Your task to perform on an android device: turn off data saver in the chrome app Image 0: 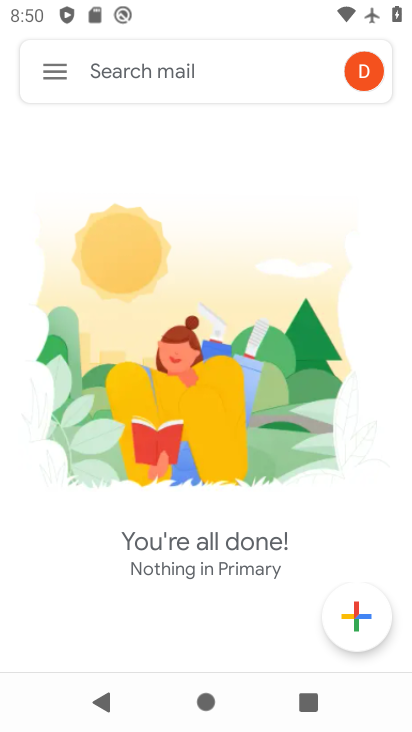
Step 0: press home button
Your task to perform on an android device: turn off data saver in the chrome app Image 1: 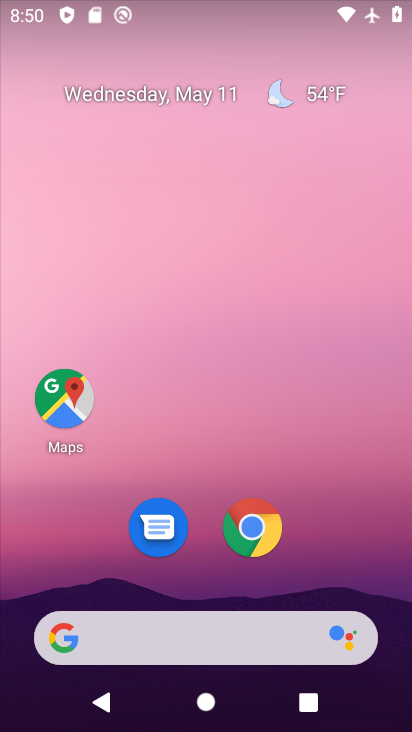
Step 1: click (270, 536)
Your task to perform on an android device: turn off data saver in the chrome app Image 2: 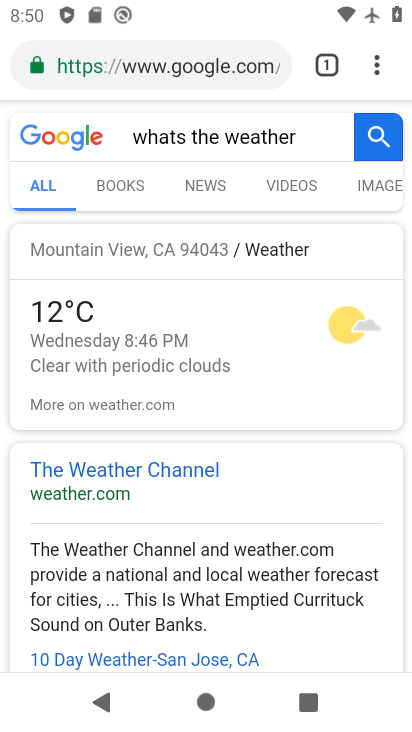
Step 2: drag from (375, 67) to (235, 590)
Your task to perform on an android device: turn off data saver in the chrome app Image 3: 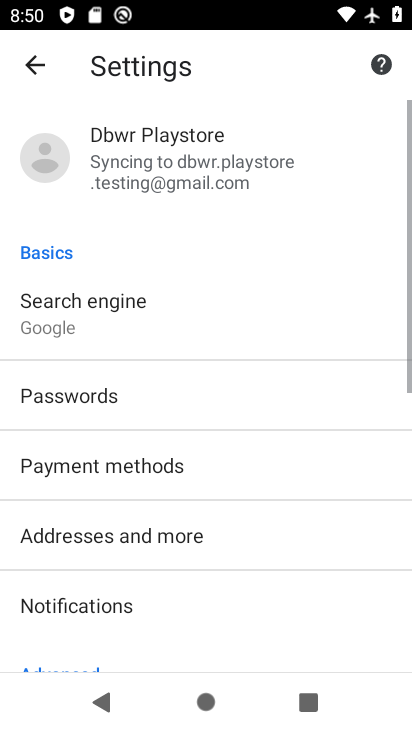
Step 3: drag from (205, 636) to (209, 284)
Your task to perform on an android device: turn off data saver in the chrome app Image 4: 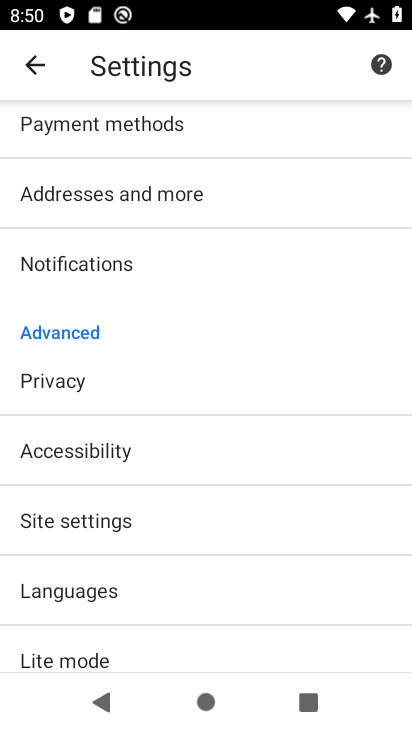
Step 4: click (95, 658)
Your task to perform on an android device: turn off data saver in the chrome app Image 5: 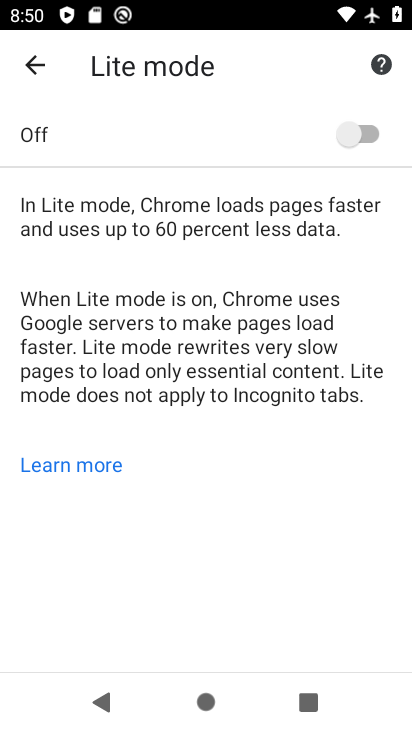
Step 5: task complete